Your task to perform on an android device: Search for "alienware area 51" on costco, select the first entry, and add it to the cart. Image 0: 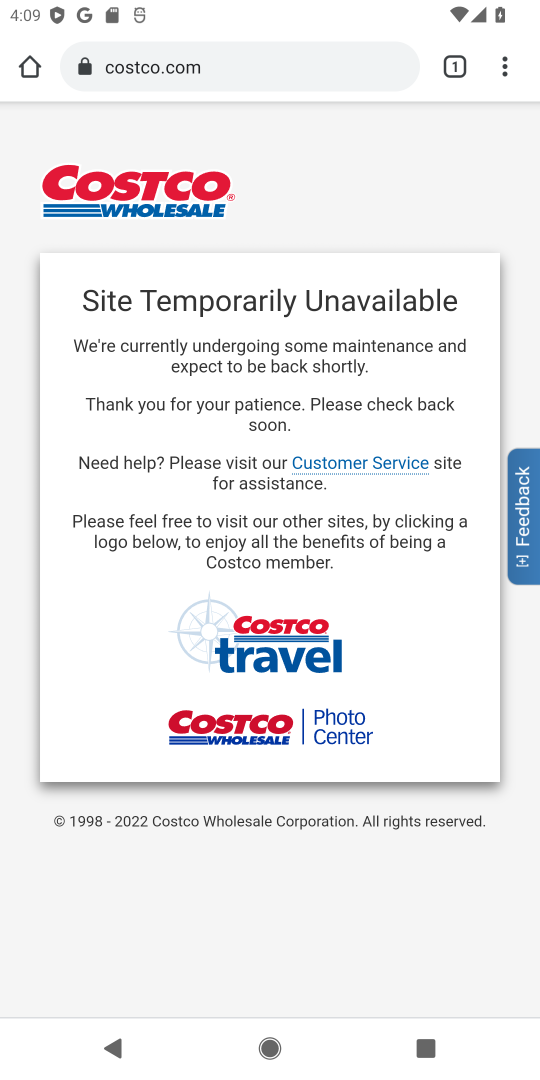
Step 0: task impossible